Your task to perform on an android device: Go to settings Image 0: 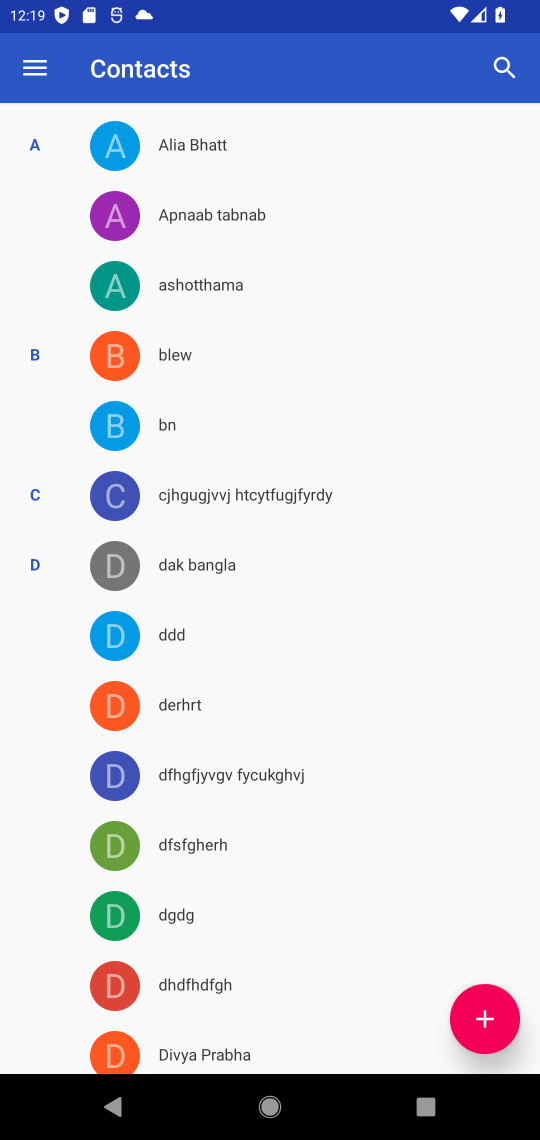
Step 0: press home button
Your task to perform on an android device: Go to settings Image 1: 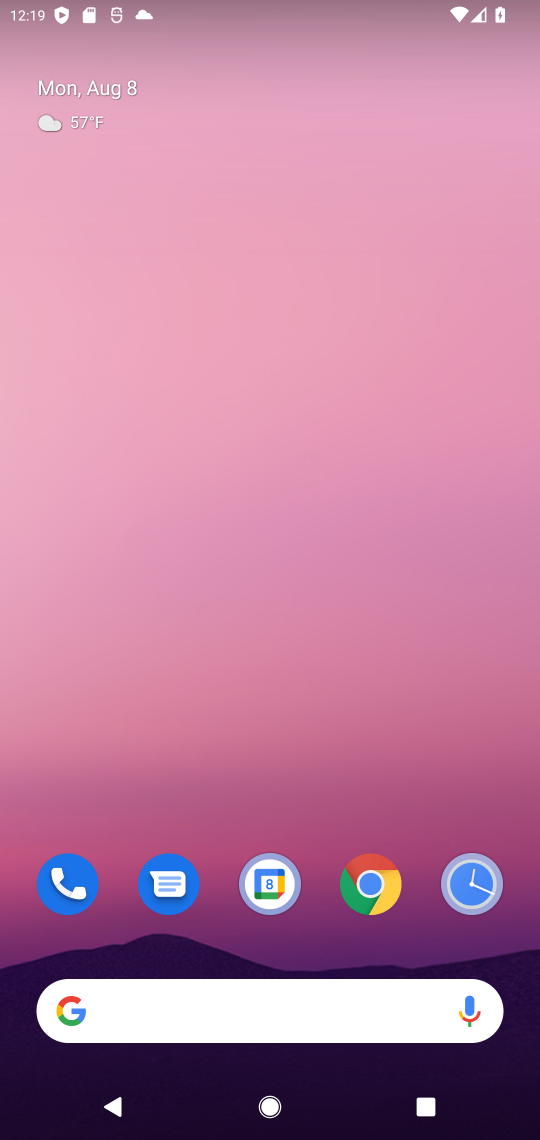
Step 1: drag from (374, 1118) to (479, 392)
Your task to perform on an android device: Go to settings Image 2: 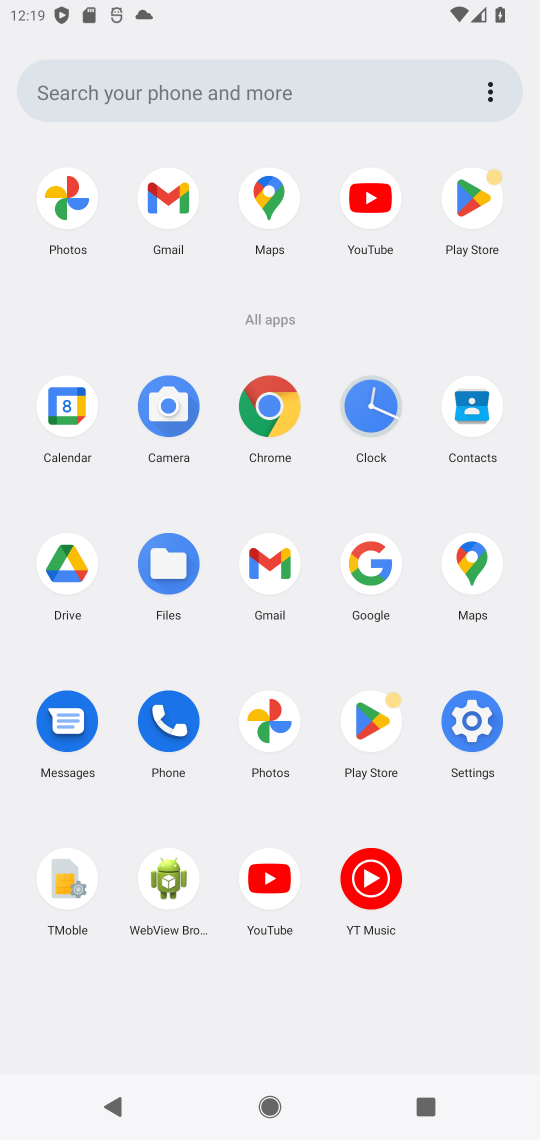
Step 2: click (453, 722)
Your task to perform on an android device: Go to settings Image 3: 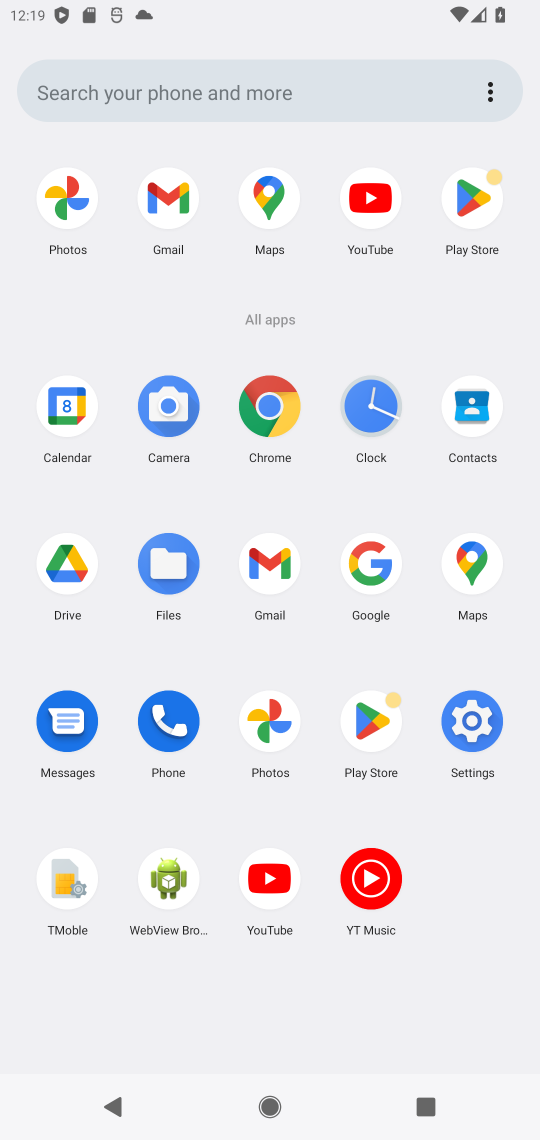
Step 3: click (453, 722)
Your task to perform on an android device: Go to settings Image 4: 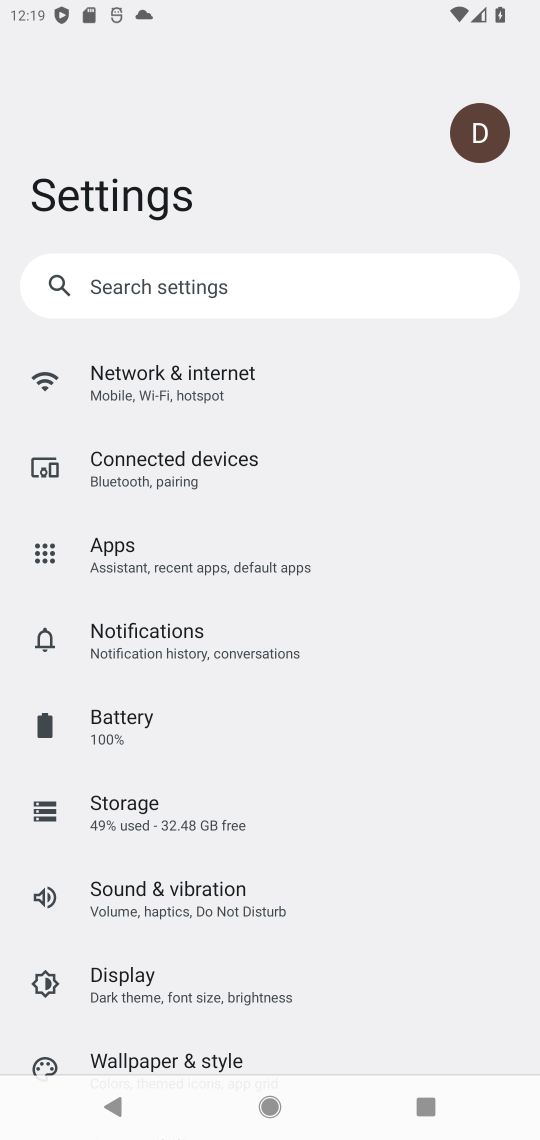
Step 4: task complete